Your task to perform on an android device: turn off javascript in the chrome app Image 0: 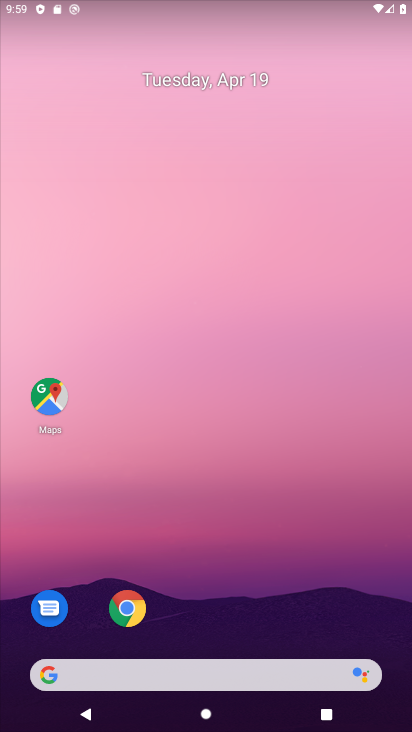
Step 0: press home button
Your task to perform on an android device: turn off javascript in the chrome app Image 1: 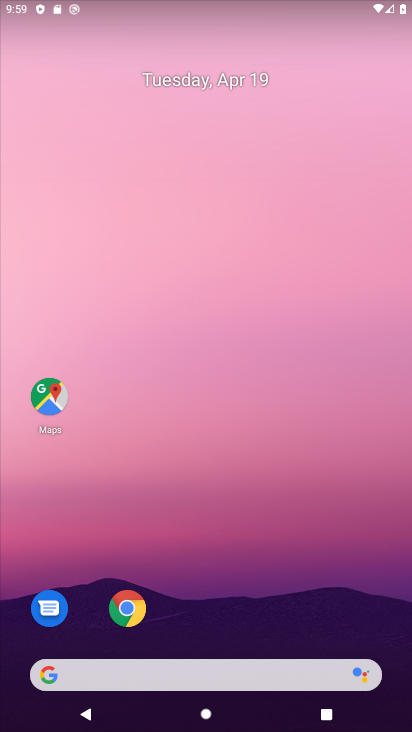
Step 1: click (124, 611)
Your task to perform on an android device: turn off javascript in the chrome app Image 2: 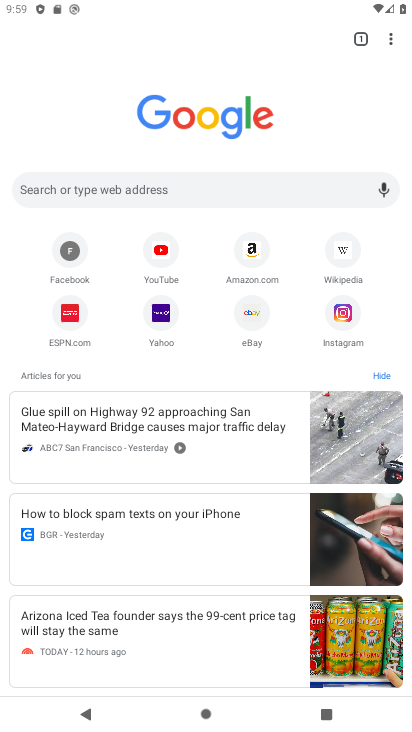
Step 2: click (389, 36)
Your task to perform on an android device: turn off javascript in the chrome app Image 3: 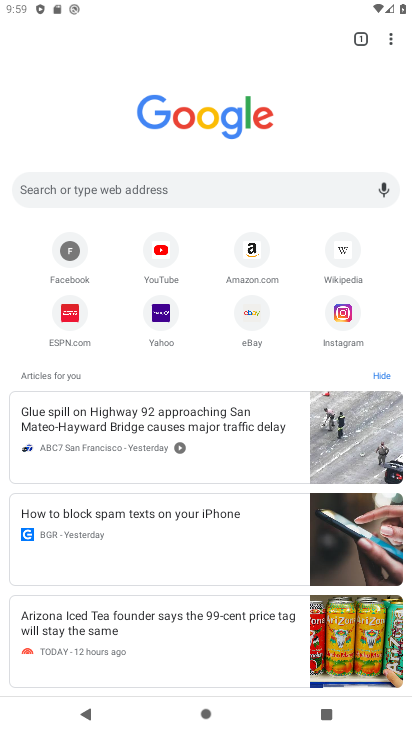
Step 3: click (383, 42)
Your task to perform on an android device: turn off javascript in the chrome app Image 4: 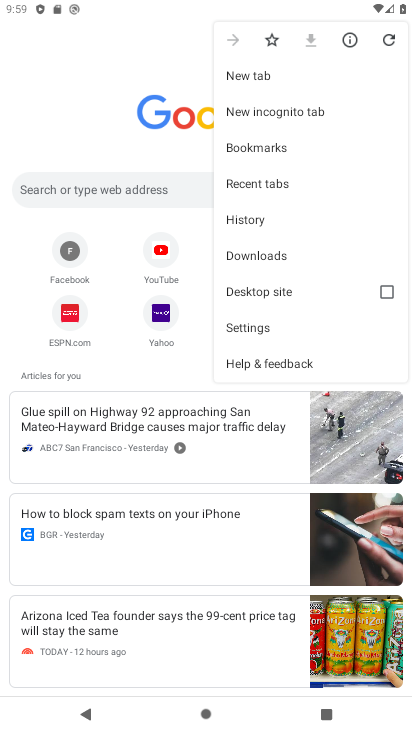
Step 4: click (247, 321)
Your task to perform on an android device: turn off javascript in the chrome app Image 5: 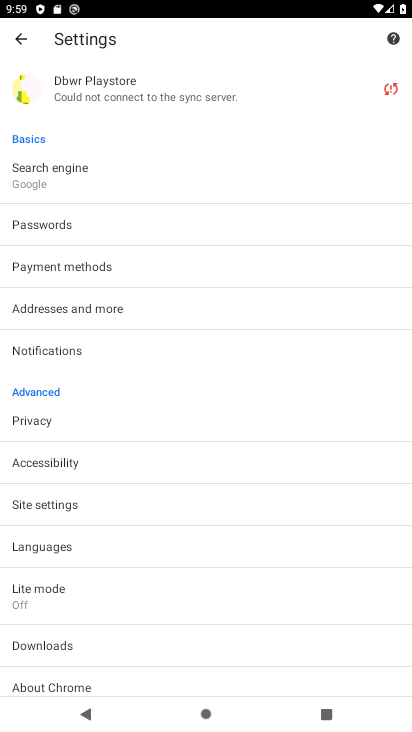
Step 5: click (89, 506)
Your task to perform on an android device: turn off javascript in the chrome app Image 6: 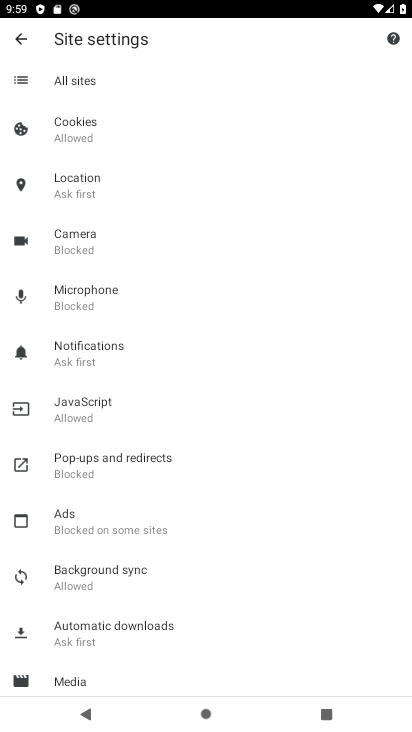
Step 6: click (126, 420)
Your task to perform on an android device: turn off javascript in the chrome app Image 7: 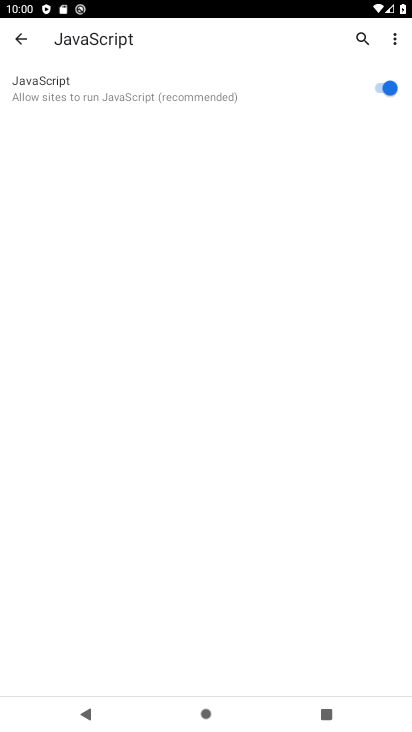
Step 7: click (378, 90)
Your task to perform on an android device: turn off javascript in the chrome app Image 8: 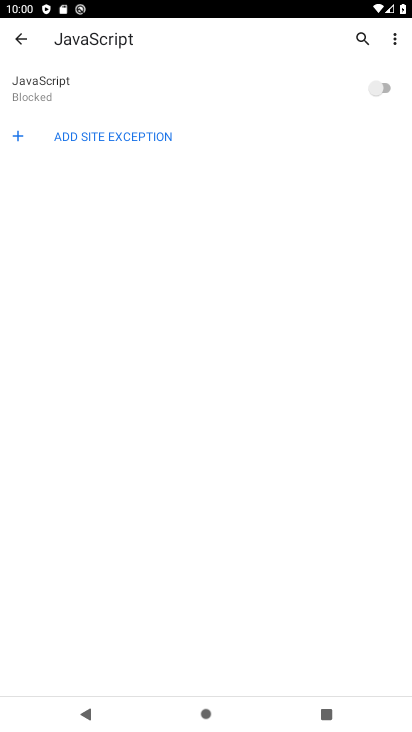
Step 8: task complete